Your task to perform on an android device: Open location settings Image 0: 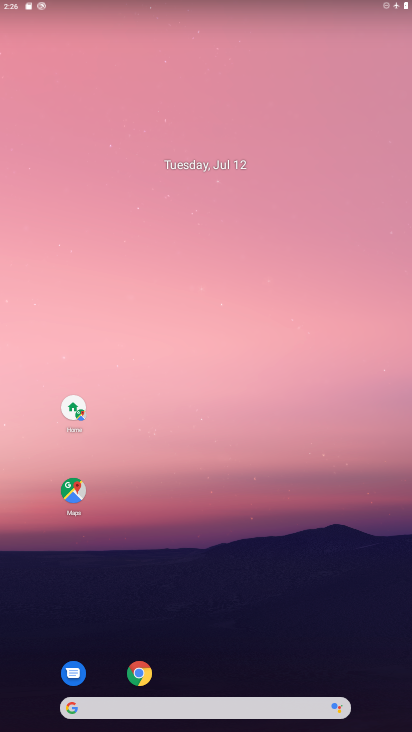
Step 0: drag from (230, 643) to (232, 225)
Your task to perform on an android device: Open location settings Image 1: 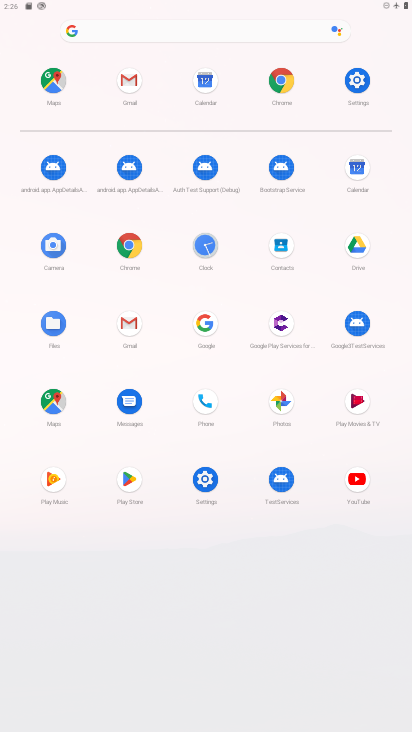
Step 1: click (356, 71)
Your task to perform on an android device: Open location settings Image 2: 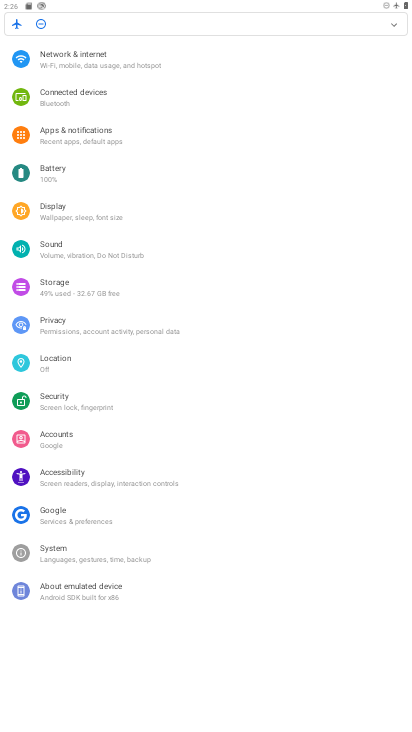
Step 2: click (65, 364)
Your task to perform on an android device: Open location settings Image 3: 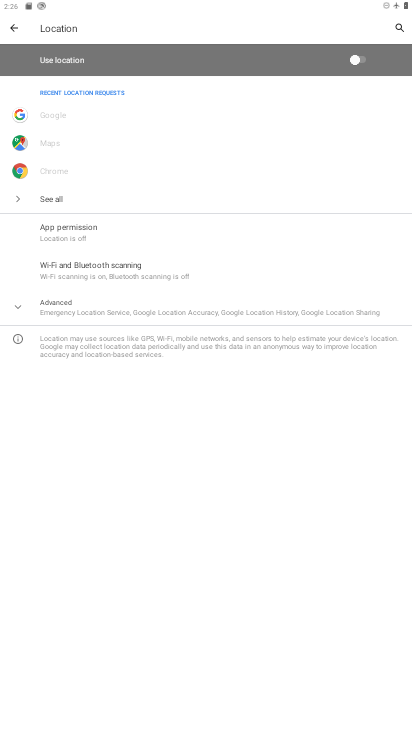
Step 3: task complete